Your task to perform on an android device: all mails in gmail Image 0: 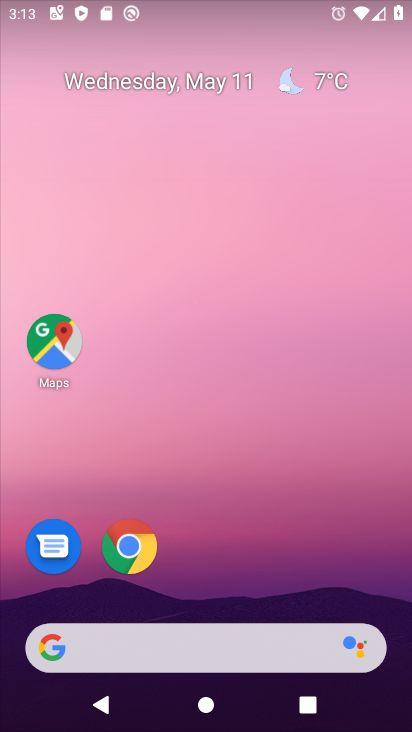
Step 0: drag from (264, 597) to (254, 106)
Your task to perform on an android device: all mails in gmail Image 1: 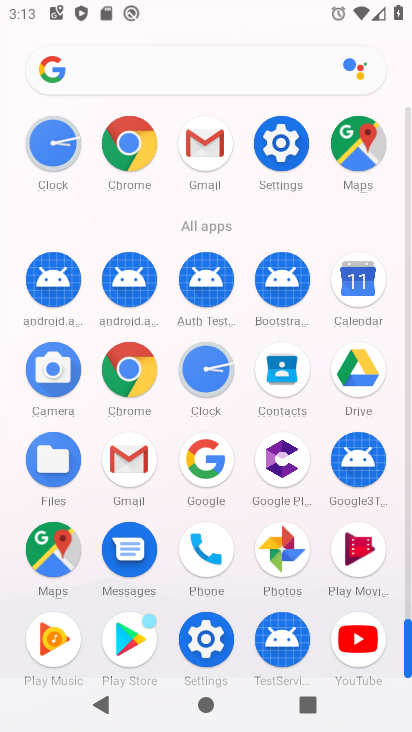
Step 1: click (139, 469)
Your task to perform on an android device: all mails in gmail Image 2: 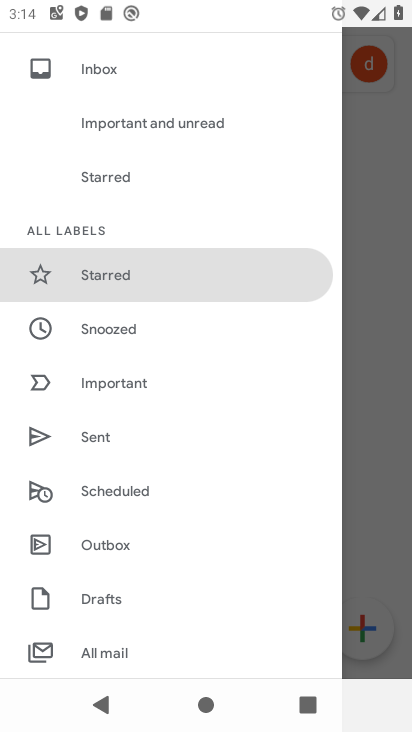
Step 2: click (136, 652)
Your task to perform on an android device: all mails in gmail Image 3: 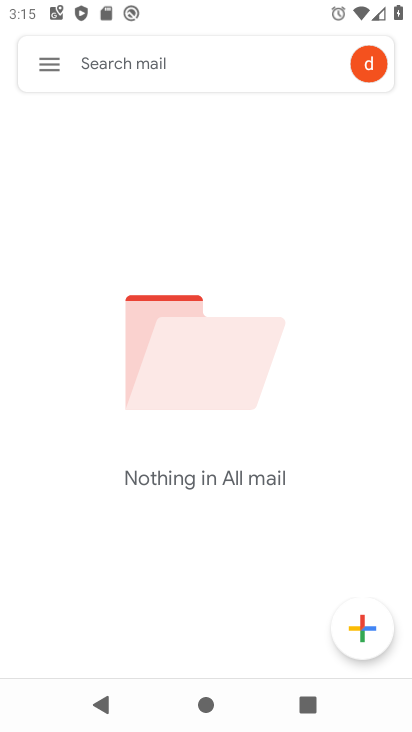
Step 3: task complete